Your task to perform on an android device: turn on the 12-hour format for clock Image 0: 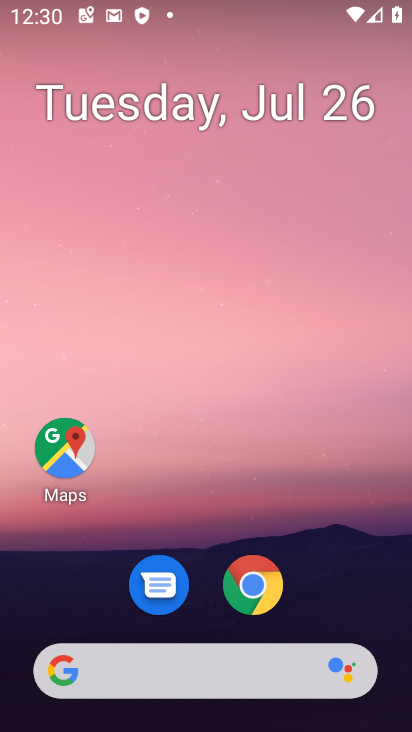
Step 0: drag from (216, 683) to (356, 103)
Your task to perform on an android device: turn on the 12-hour format for clock Image 1: 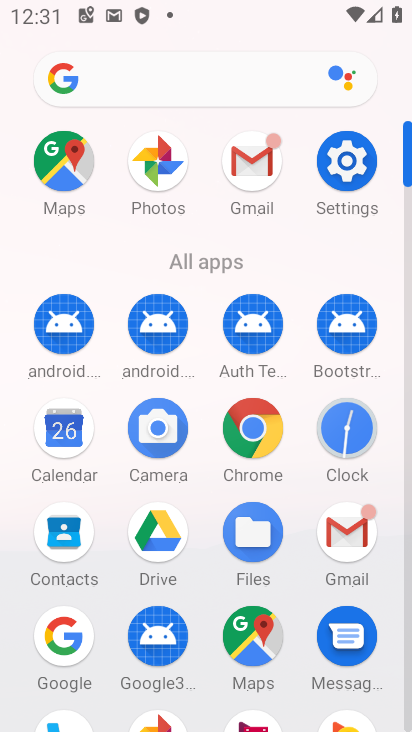
Step 1: click (346, 427)
Your task to perform on an android device: turn on the 12-hour format for clock Image 2: 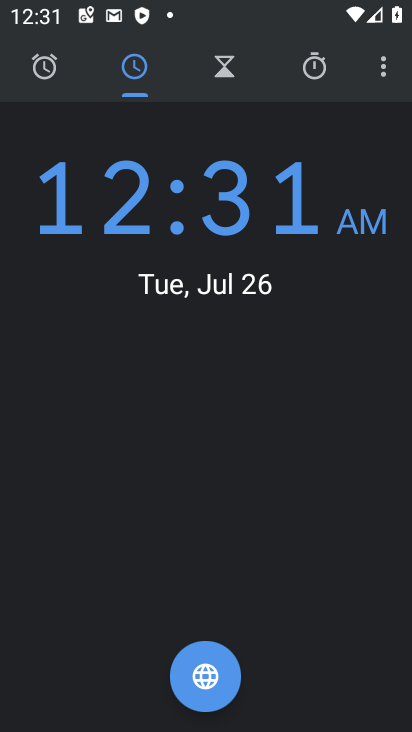
Step 2: click (382, 61)
Your task to perform on an android device: turn on the 12-hour format for clock Image 3: 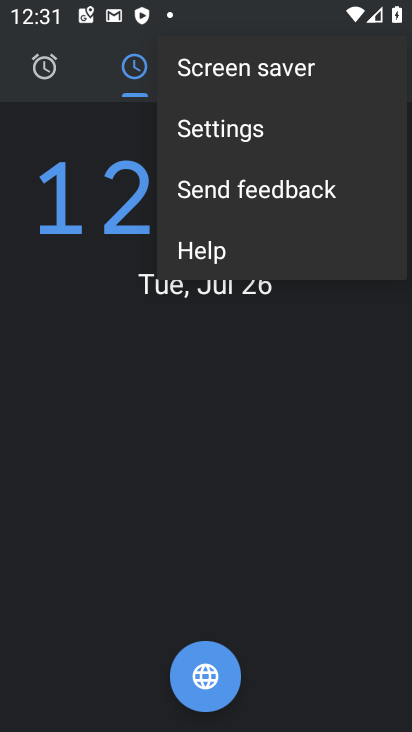
Step 3: click (256, 128)
Your task to perform on an android device: turn on the 12-hour format for clock Image 4: 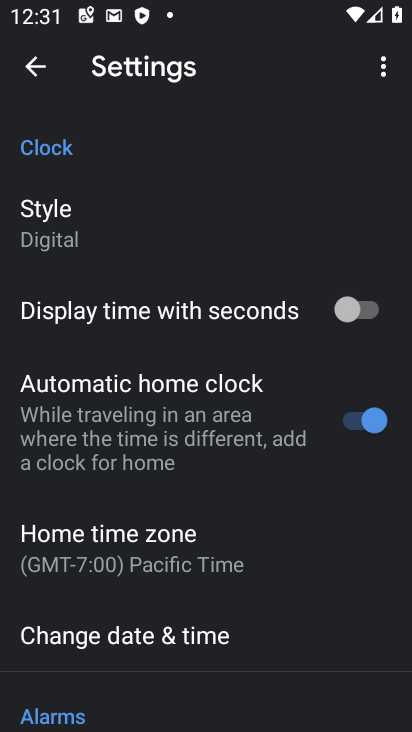
Step 4: click (99, 637)
Your task to perform on an android device: turn on the 12-hour format for clock Image 5: 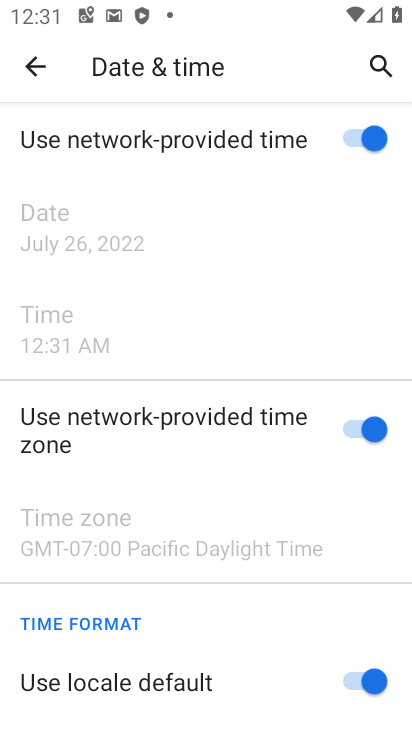
Step 5: task complete